Your task to perform on an android device: turn on sleep mode Image 0: 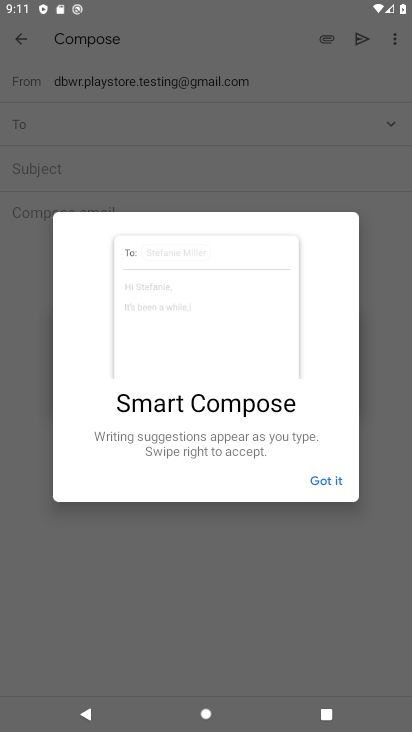
Step 0: press back button
Your task to perform on an android device: turn on sleep mode Image 1: 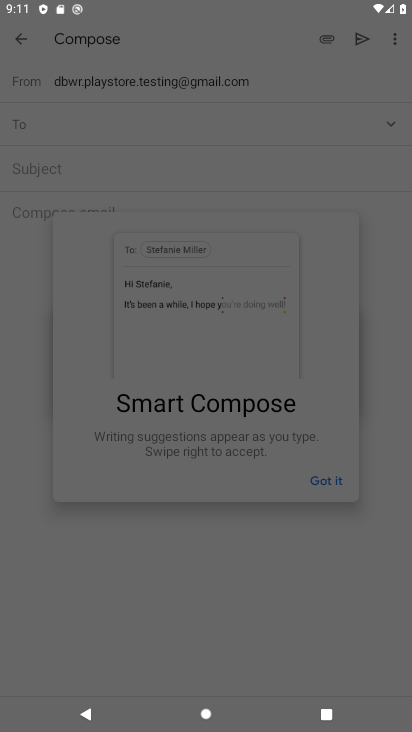
Step 1: press home button
Your task to perform on an android device: turn on sleep mode Image 2: 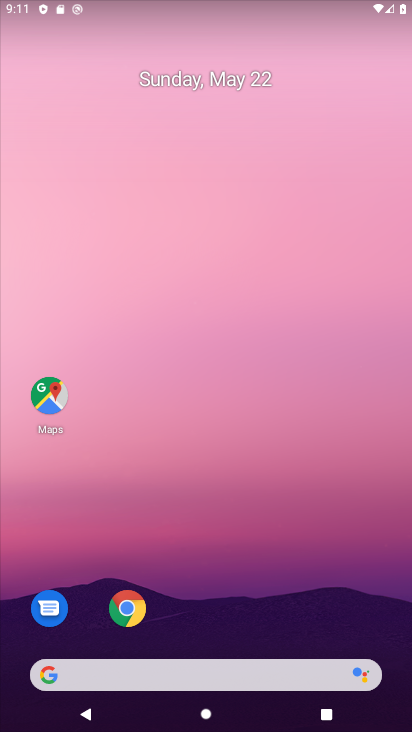
Step 2: drag from (231, 569) to (180, 16)
Your task to perform on an android device: turn on sleep mode Image 3: 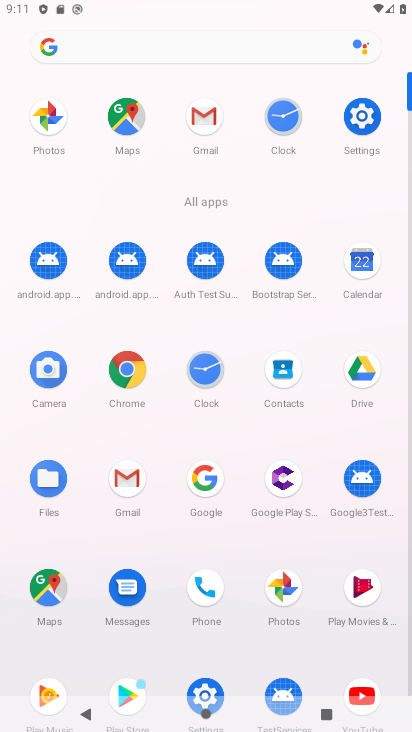
Step 3: click (363, 116)
Your task to perform on an android device: turn on sleep mode Image 4: 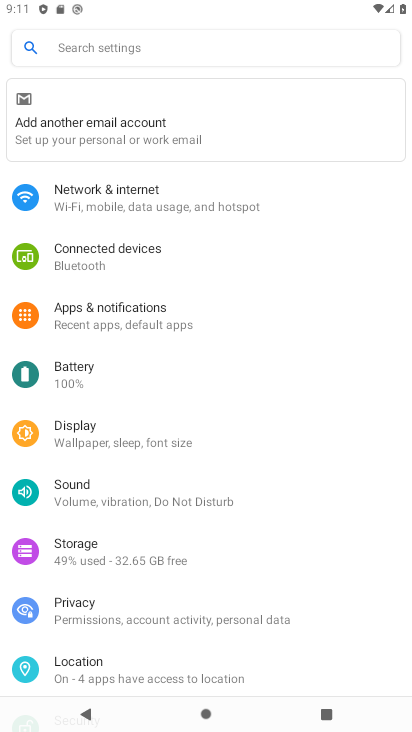
Step 4: click (188, 195)
Your task to perform on an android device: turn on sleep mode Image 5: 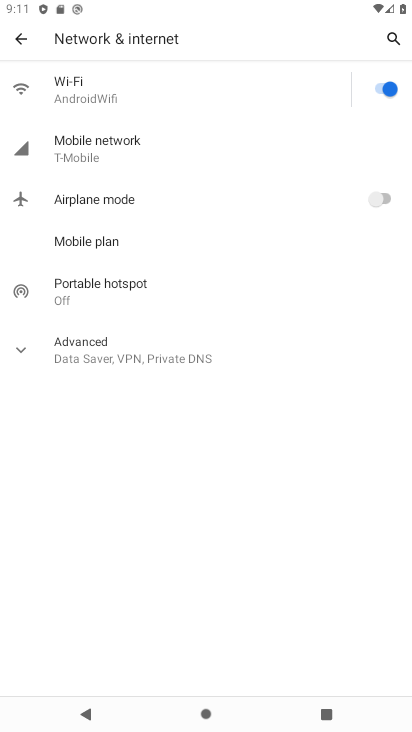
Step 5: click (10, 348)
Your task to perform on an android device: turn on sleep mode Image 6: 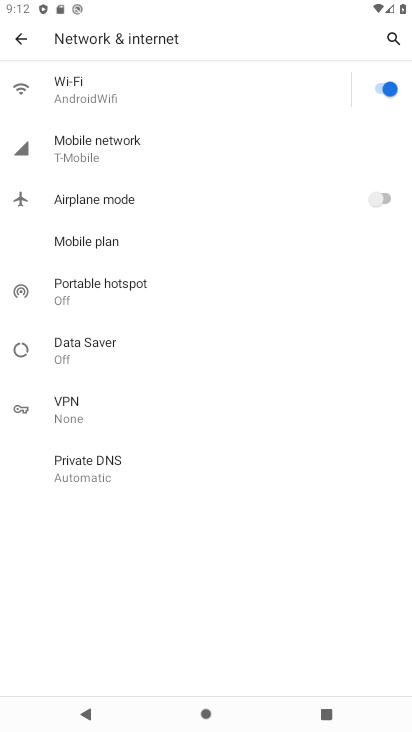
Step 6: task complete